Your task to perform on an android device: Search for the best selling coffee table on Crate & Barrel Image 0: 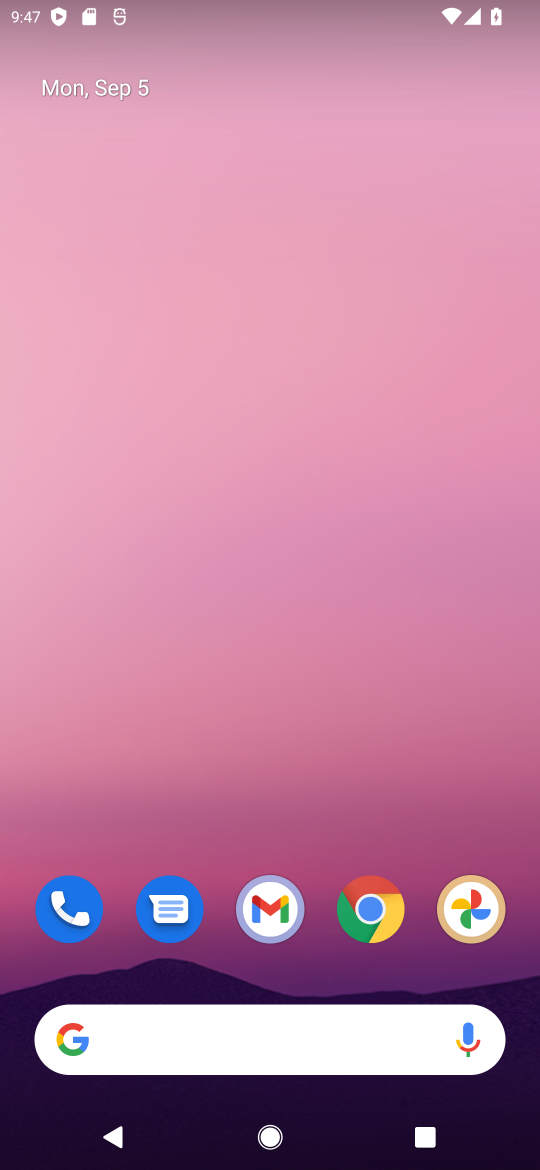
Step 0: click (380, 904)
Your task to perform on an android device: Search for the best selling coffee table on Crate & Barrel Image 1: 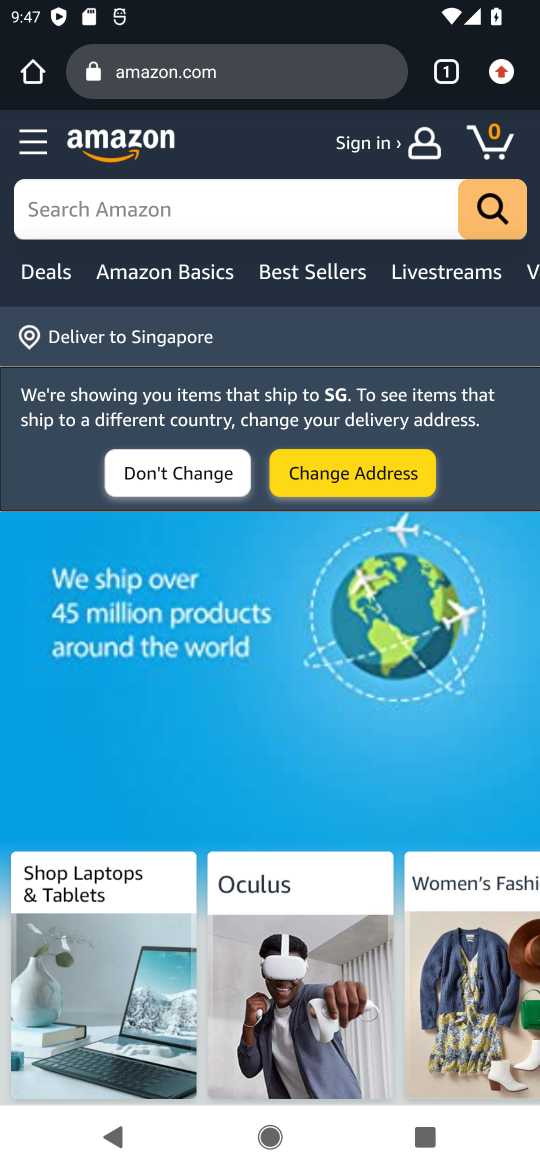
Step 1: task complete